Your task to perform on an android device: move an email to a new category in the gmail app Image 0: 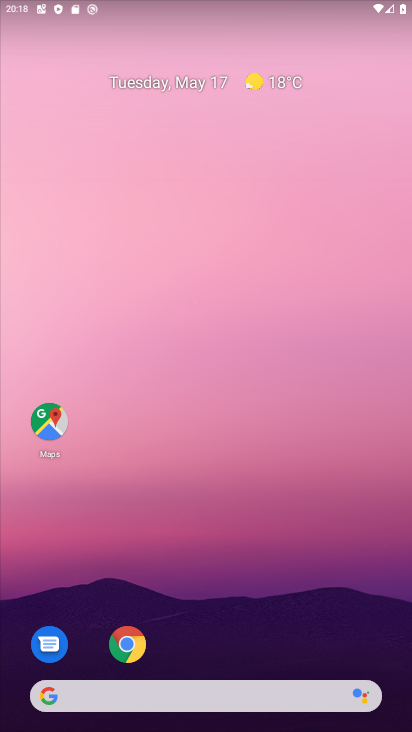
Step 0: drag from (259, 566) to (315, 142)
Your task to perform on an android device: move an email to a new category in the gmail app Image 1: 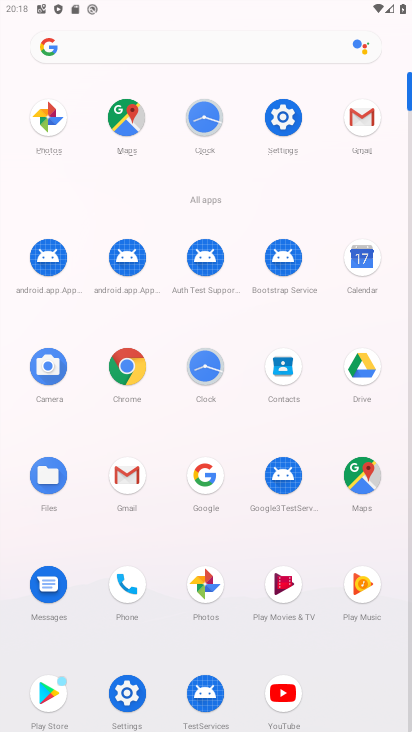
Step 1: click (356, 115)
Your task to perform on an android device: move an email to a new category in the gmail app Image 2: 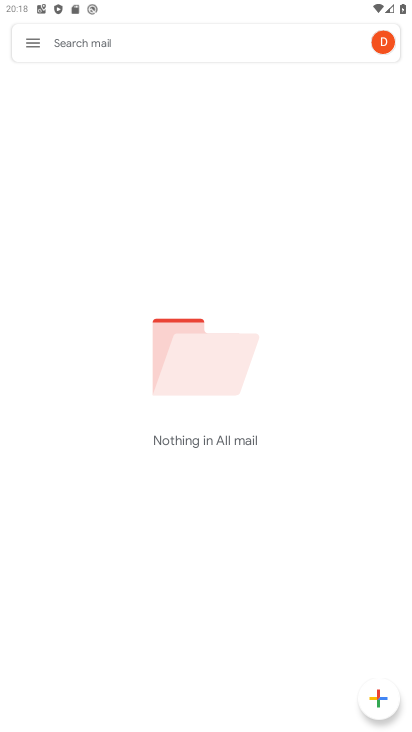
Step 2: click (29, 35)
Your task to perform on an android device: move an email to a new category in the gmail app Image 3: 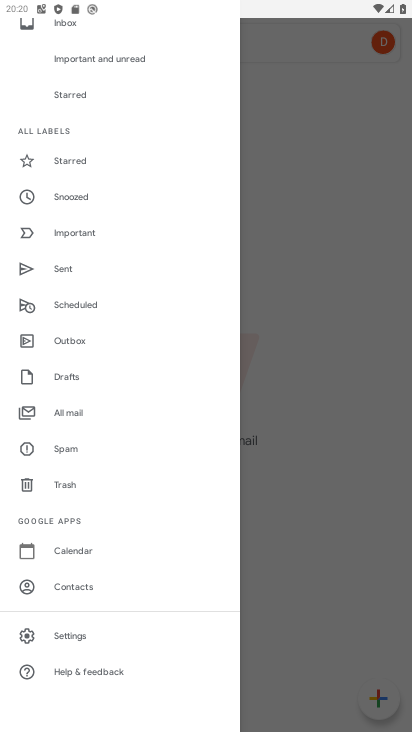
Step 3: click (85, 418)
Your task to perform on an android device: move an email to a new category in the gmail app Image 4: 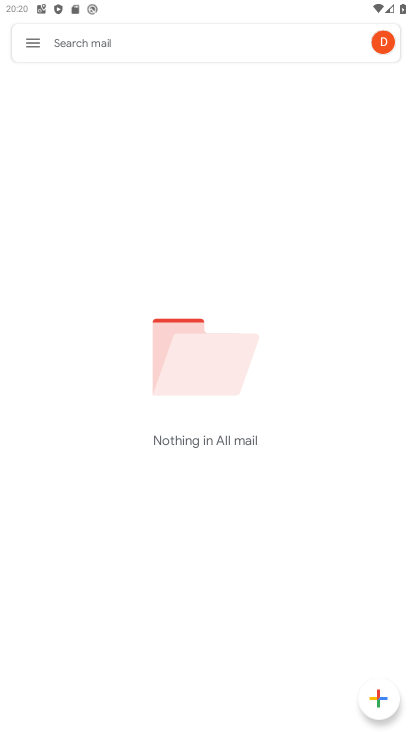
Step 4: task complete